Your task to perform on an android device: Open calendar and show me the first week of next month Image 0: 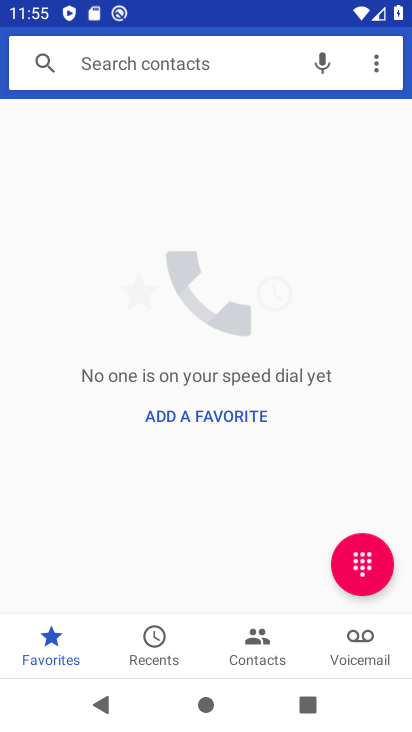
Step 0: press back button
Your task to perform on an android device: Open calendar and show me the first week of next month Image 1: 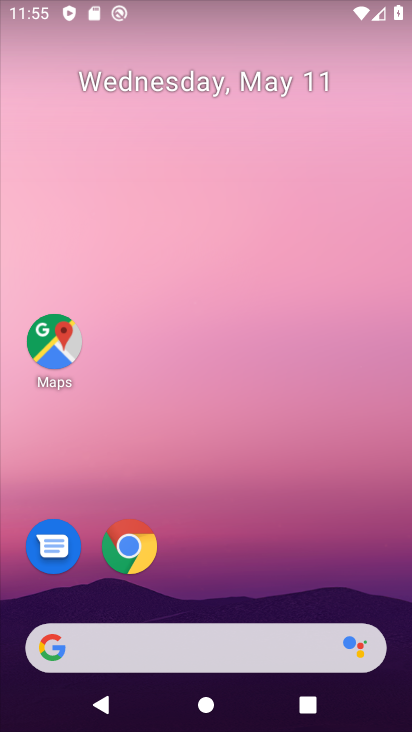
Step 1: drag from (193, 602) to (285, 166)
Your task to perform on an android device: Open calendar and show me the first week of next month Image 2: 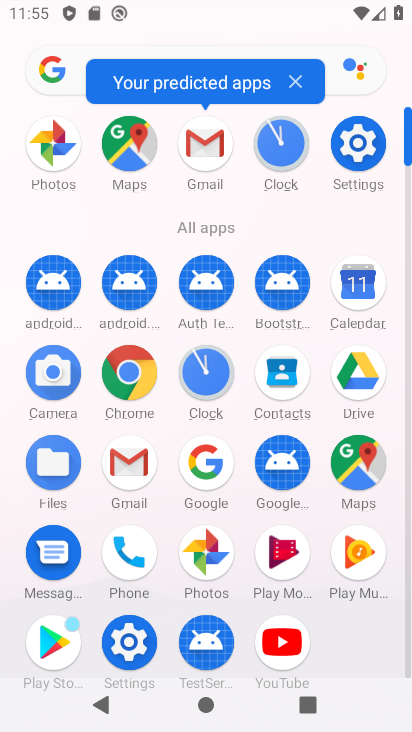
Step 2: click (362, 283)
Your task to perform on an android device: Open calendar and show me the first week of next month Image 3: 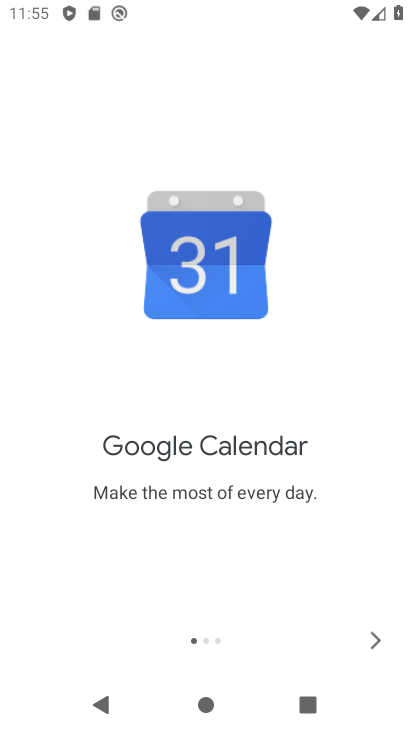
Step 3: click (385, 658)
Your task to perform on an android device: Open calendar and show me the first week of next month Image 4: 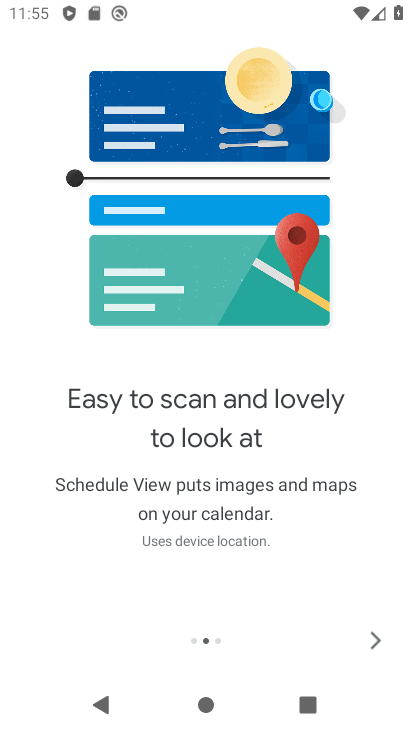
Step 4: click (385, 657)
Your task to perform on an android device: Open calendar and show me the first week of next month Image 5: 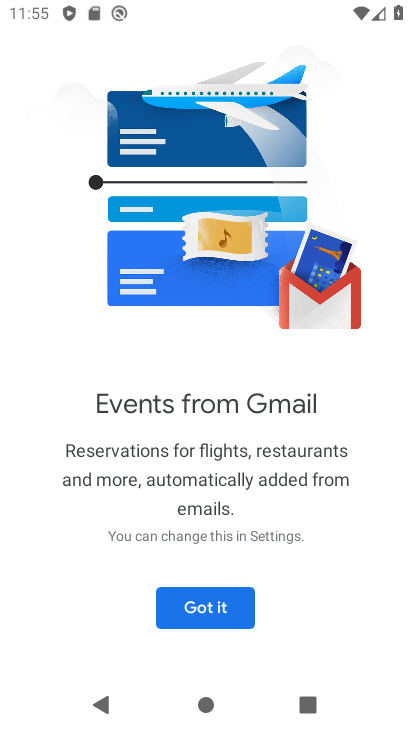
Step 5: click (254, 628)
Your task to perform on an android device: Open calendar and show me the first week of next month Image 6: 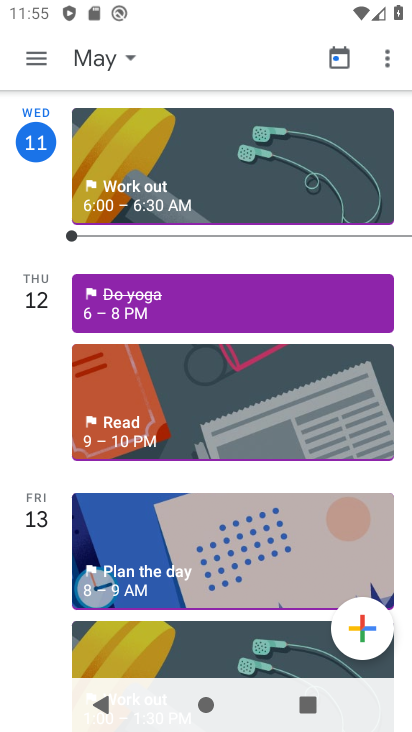
Step 6: click (72, 51)
Your task to perform on an android device: Open calendar and show me the first week of next month Image 7: 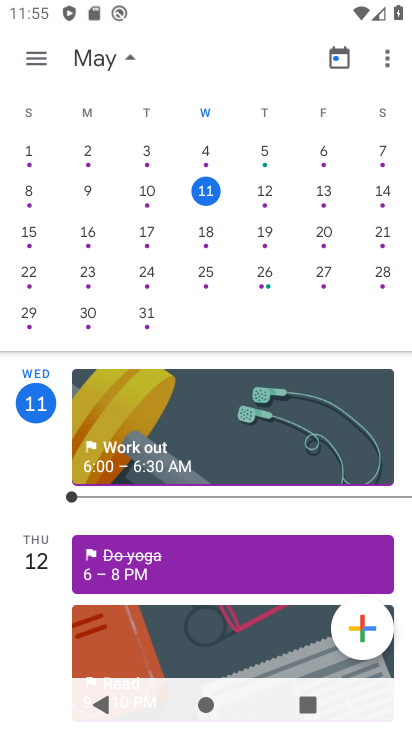
Step 7: drag from (341, 300) to (47, 242)
Your task to perform on an android device: Open calendar and show me the first week of next month Image 8: 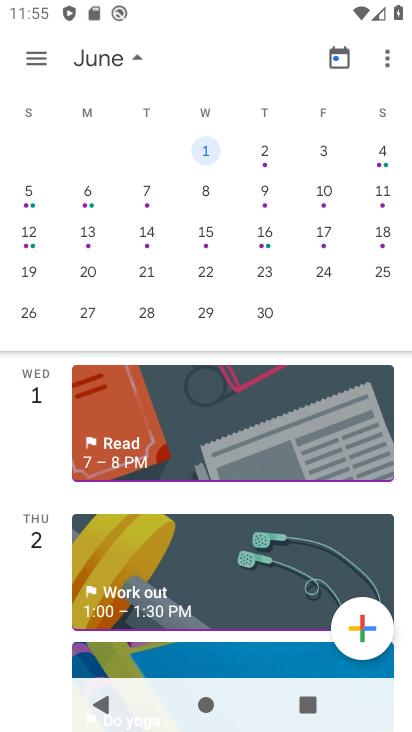
Step 8: click (25, 192)
Your task to perform on an android device: Open calendar and show me the first week of next month Image 9: 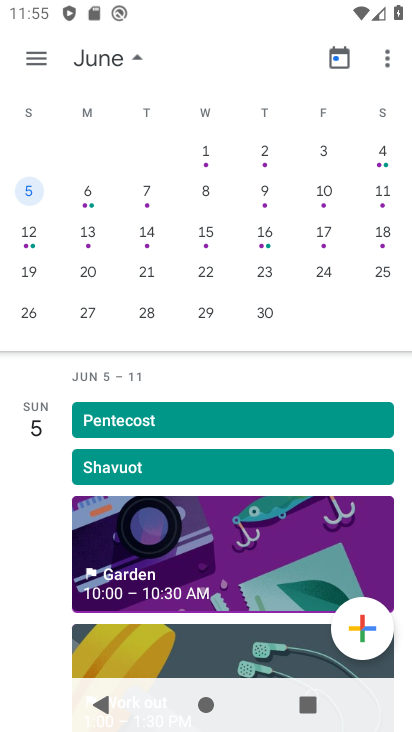
Step 9: click (49, 65)
Your task to perform on an android device: Open calendar and show me the first week of next month Image 10: 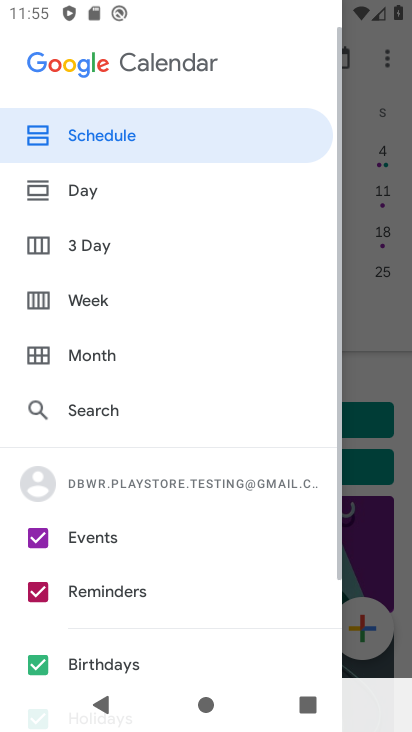
Step 10: click (107, 304)
Your task to perform on an android device: Open calendar and show me the first week of next month Image 11: 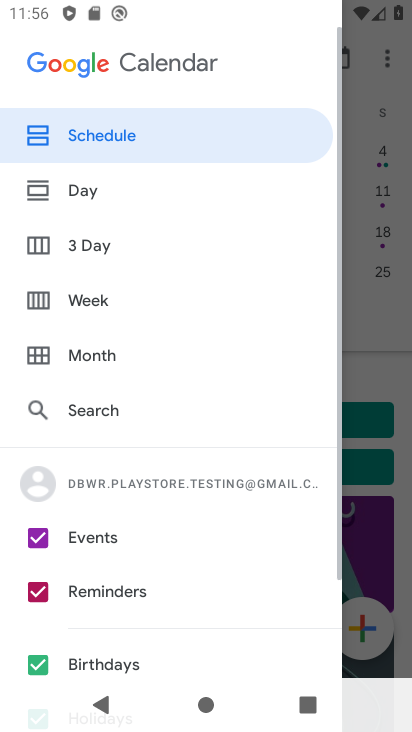
Step 11: click (107, 300)
Your task to perform on an android device: Open calendar and show me the first week of next month Image 12: 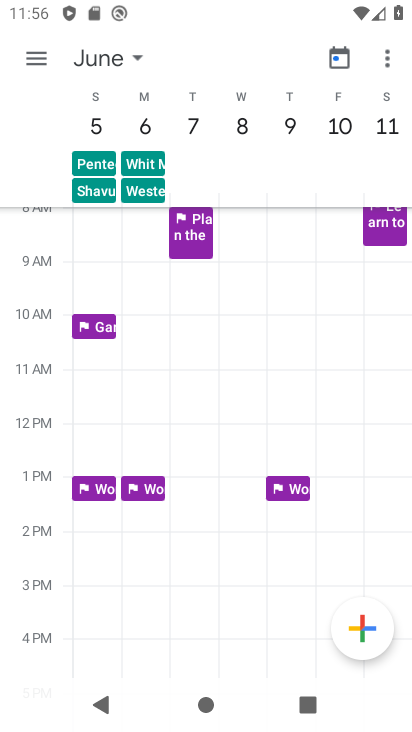
Step 12: task complete